Your task to perform on an android device: open app "The Home Depot" (install if not already installed) Image 0: 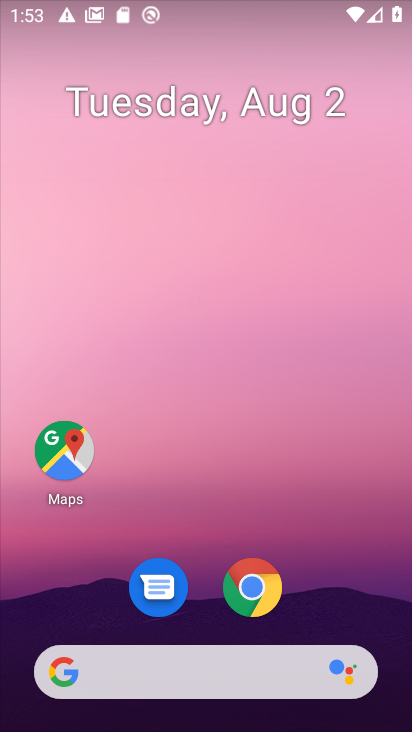
Step 0: click (215, 181)
Your task to perform on an android device: open app "The Home Depot" (install if not already installed) Image 1: 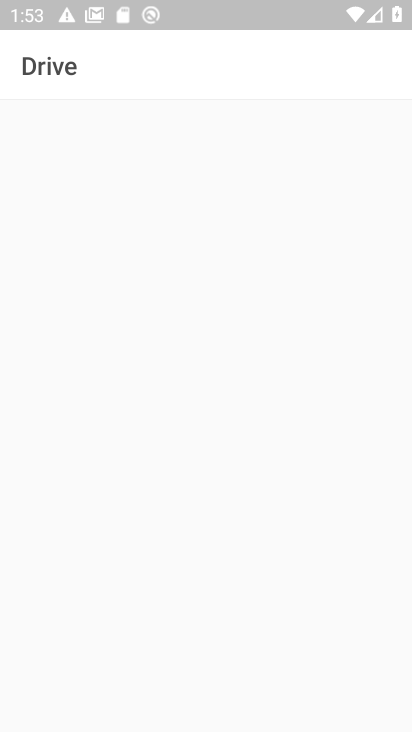
Step 1: press back button
Your task to perform on an android device: open app "The Home Depot" (install if not already installed) Image 2: 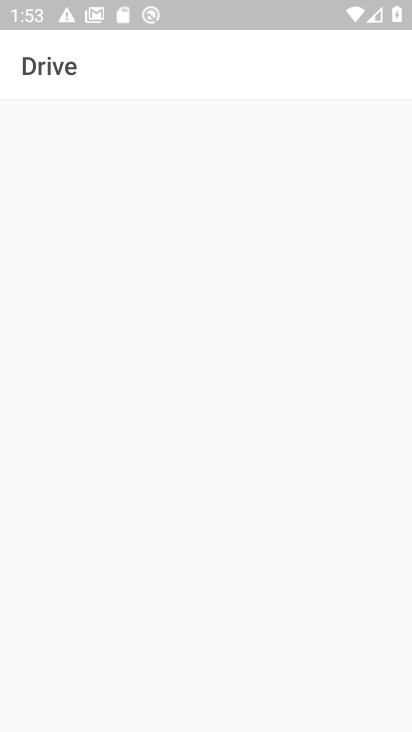
Step 2: press back button
Your task to perform on an android device: open app "The Home Depot" (install if not already installed) Image 3: 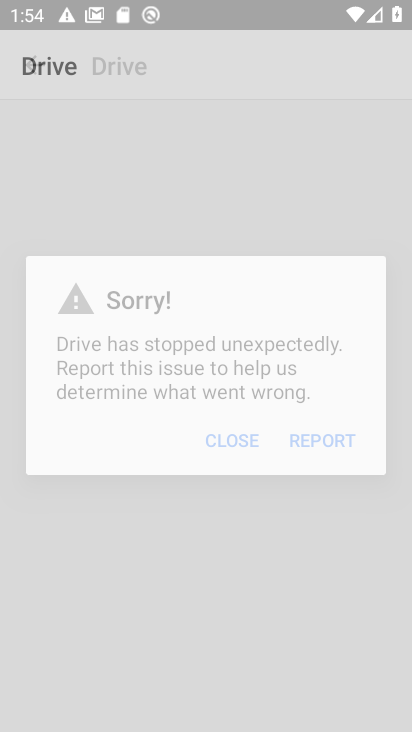
Step 3: press home button
Your task to perform on an android device: open app "The Home Depot" (install if not already installed) Image 4: 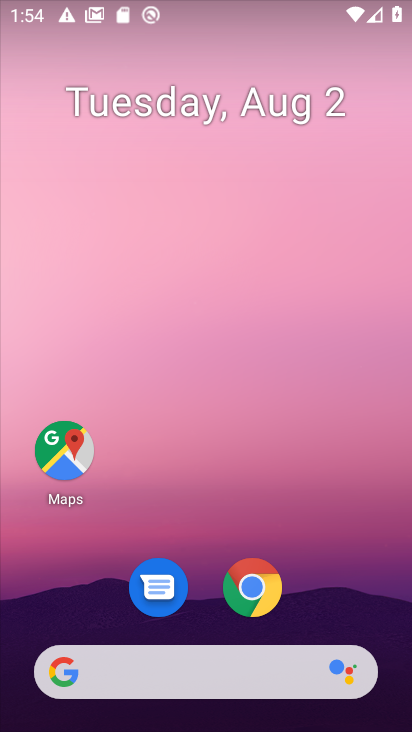
Step 4: drag from (209, 500) to (227, 125)
Your task to perform on an android device: open app "The Home Depot" (install if not already installed) Image 5: 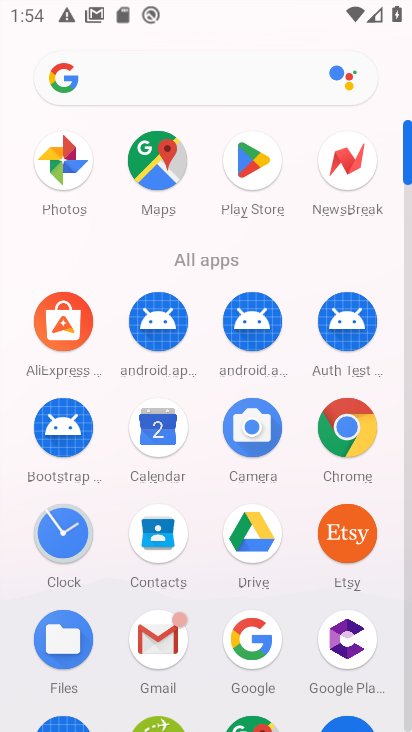
Step 5: click (272, 165)
Your task to perform on an android device: open app "The Home Depot" (install if not already installed) Image 6: 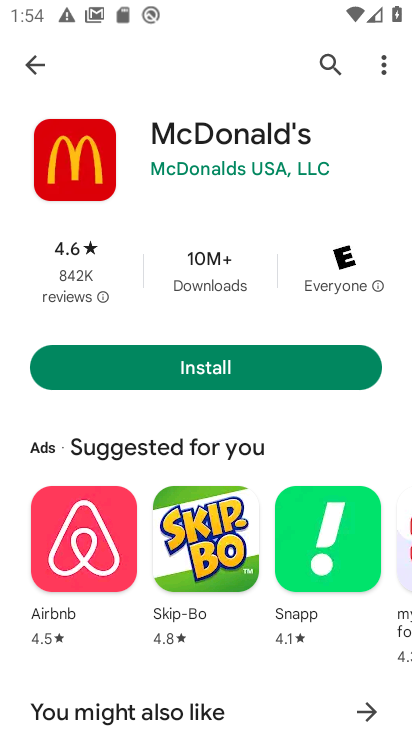
Step 6: click (333, 65)
Your task to perform on an android device: open app "The Home Depot" (install if not already installed) Image 7: 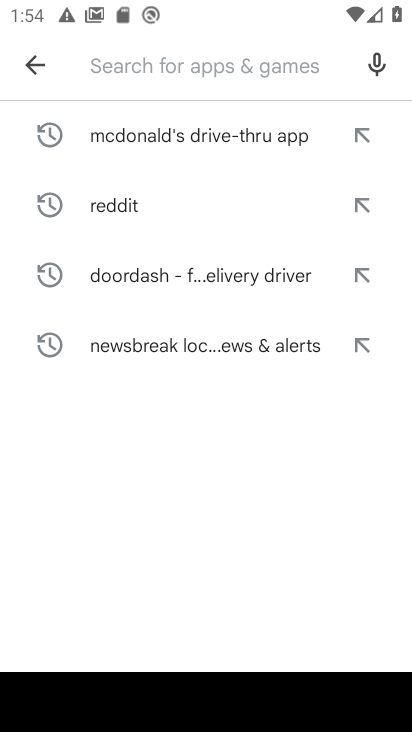
Step 7: type "The Home Depot"
Your task to perform on an android device: open app "The Home Depot" (install if not already installed) Image 8: 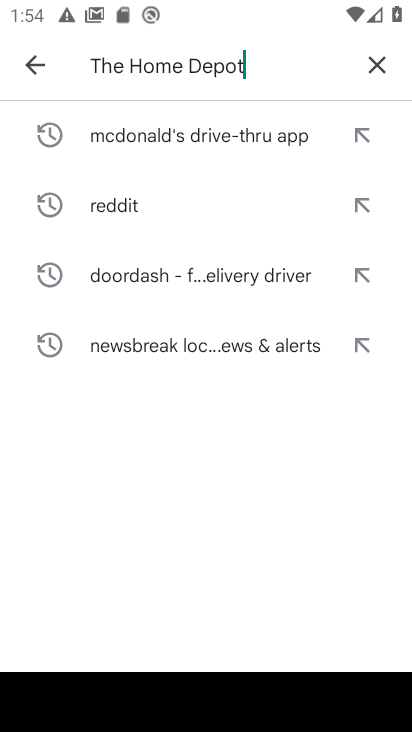
Step 8: type ""
Your task to perform on an android device: open app "The Home Depot" (install if not already installed) Image 9: 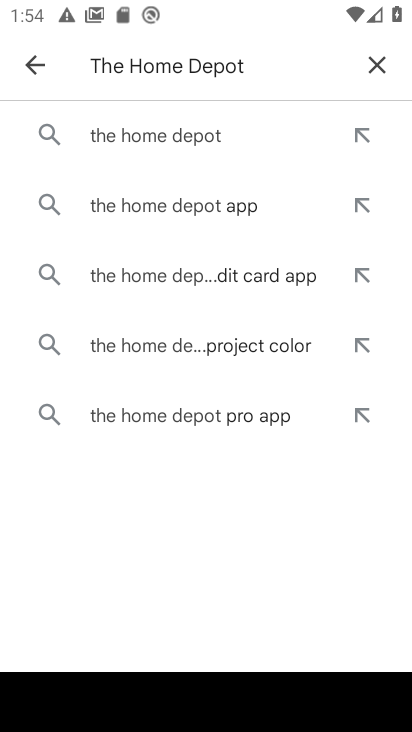
Step 9: click (209, 145)
Your task to perform on an android device: open app "The Home Depot" (install if not already installed) Image 10: 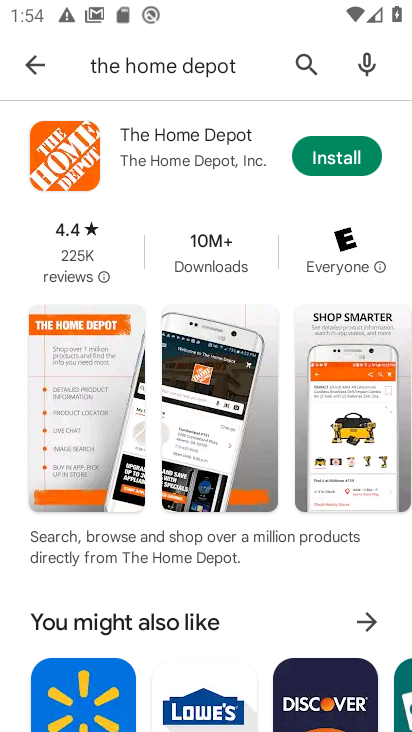
Step 10: click (339, 165)
Your task to perform on an android device: open app "The Home Depot" (install if not already installed) Image 11: 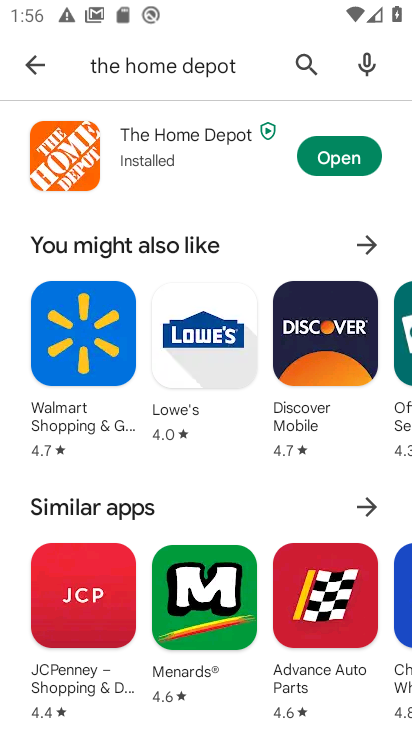
Step 11: click (297, 160)
Your task to perform on an android device: open app "The Home Depot" (install if not already installed) Image 12: 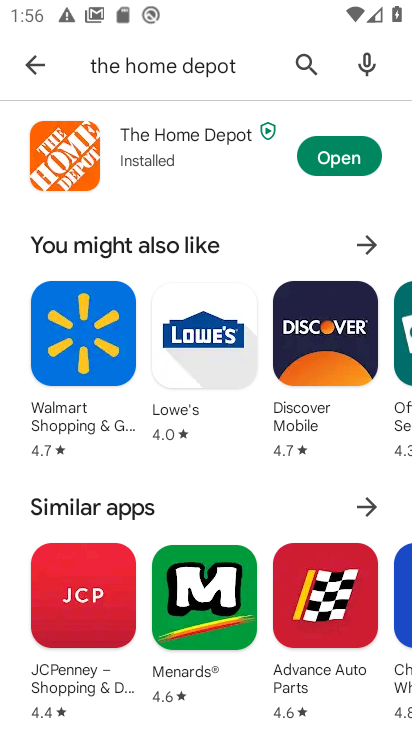
Step 12: click (323, 164)
Your task to perform on an android device: open app "The Home Depot" (install if not already installed) Image 13: 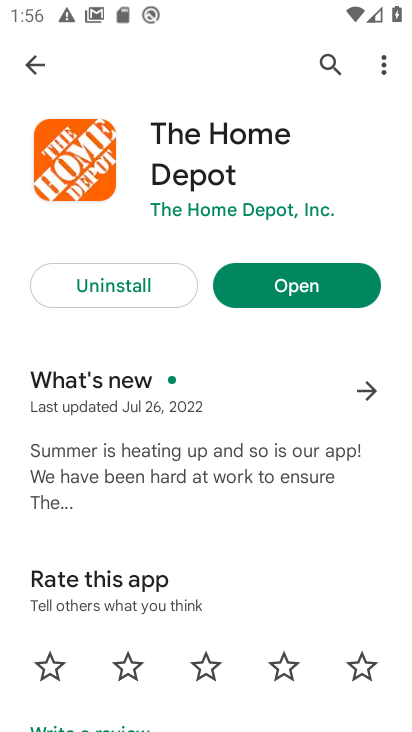
Step 13: click (294, 295)
Your task to perform on an android device: open app "The Home Depot" (install if not already installed) Image 14: 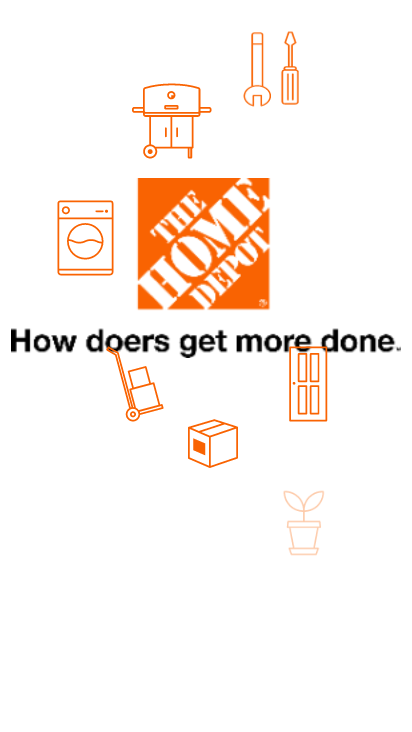
Step 14: task complete